Your task to perform on an android device: Show me popular videos on Youtube Image 0: 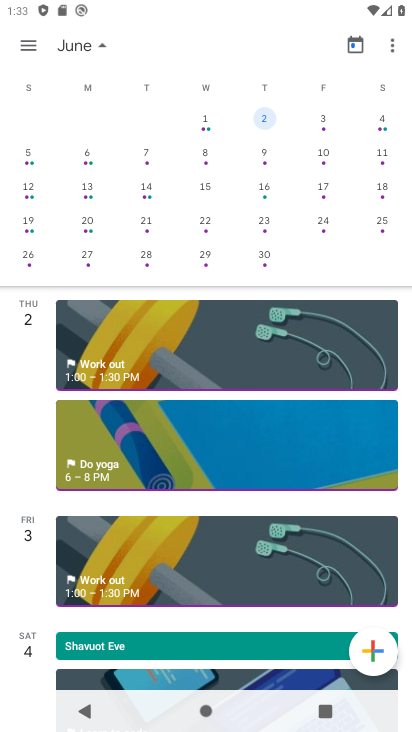
Step 0: press home button
Your task to perform on an android device: Show me popular videos on Youtube Image 1: 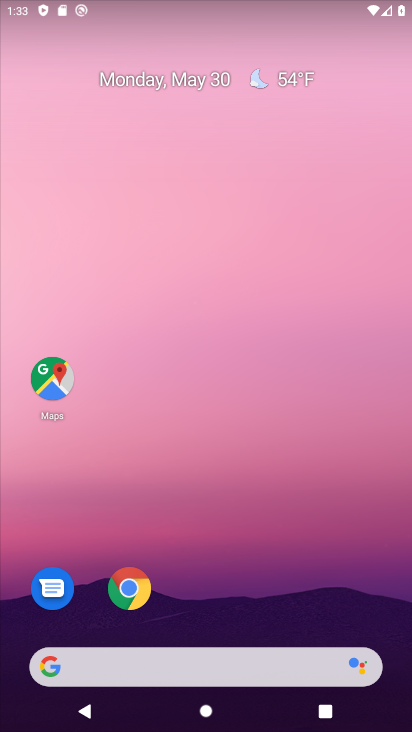
Step 1: drag from (264, 586) to (290, 17)
Your task to perform on an android device: Show me popular videos on Youtube Image 2: 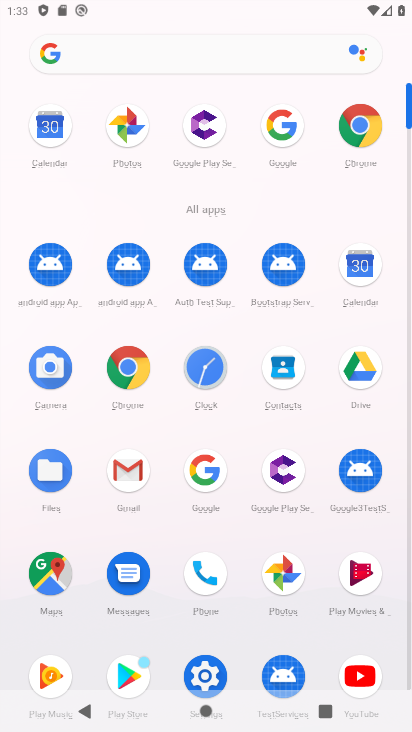
Step 2: click (359, 666)
Your task to perform on an android device: Show me popular videos on Youtube Image 3: 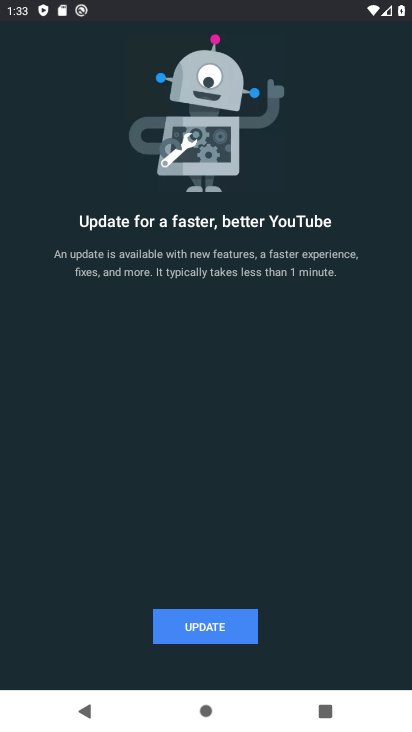
Step 3: click (212, 620)
Your task to perform on an android device: Show me popular videos on Youtube Image 4: 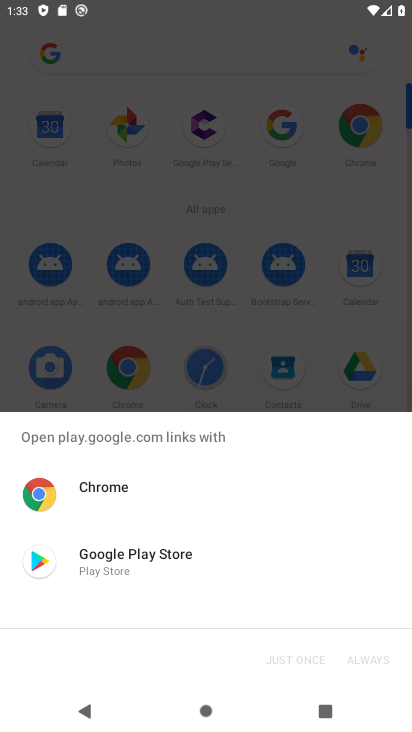
Step 4: click (136, 551)
Your task to perform on an android device: Show me popular videos on Youtube Image 5: 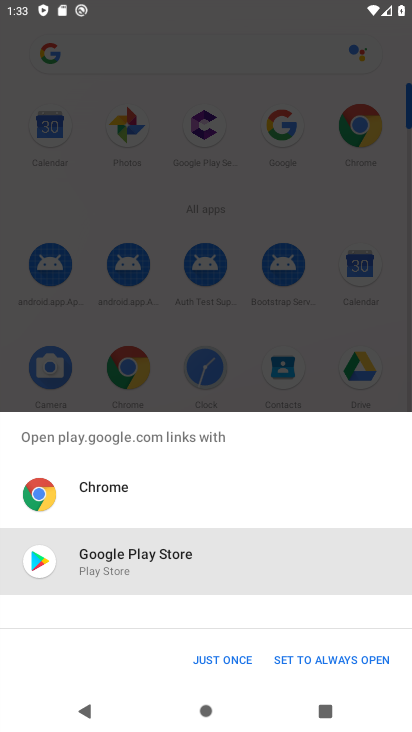
Step 5: click (207, 647)
Your task to perform on an android device: Show me popular videos on Youtube Image 6: 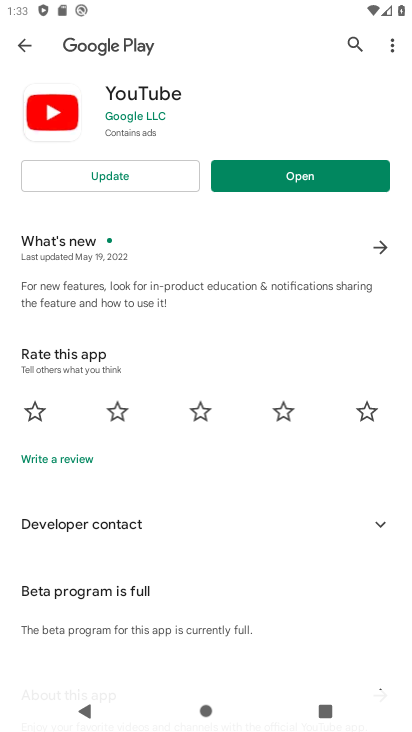
Step 6: click (121, 174)
Your task to perform on an android device: Show me popular videos on Youtube Image 7: 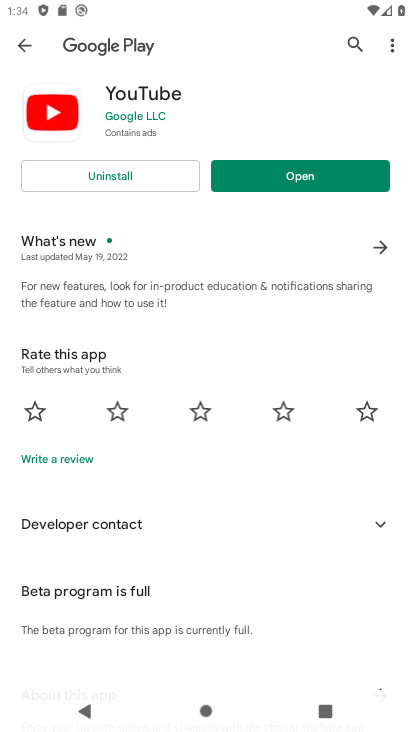
Step 7: click (331, 162)
Your task to perform on an android device: Show me popular videos on Youtube Image 8: 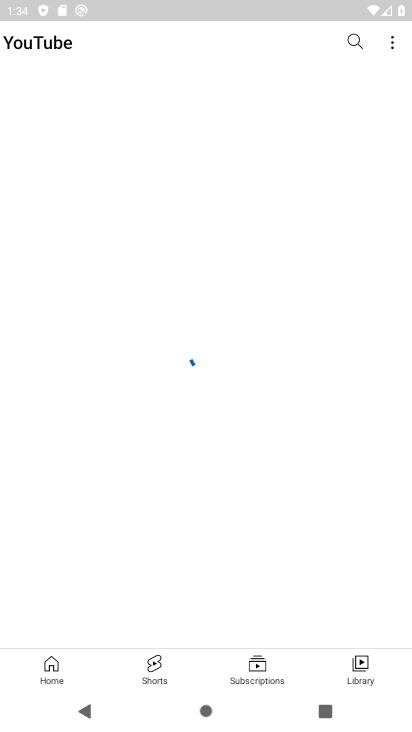
Step 8: click (48, 677)
Your task to perform on an android device: Show me popular videos on Youtube Image 9: 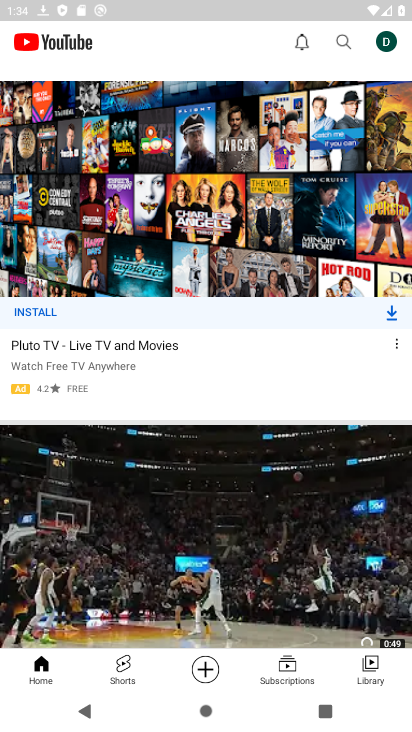
Step 9: task complete